Your task to perform on an android device: turn notification dots on Image 0: 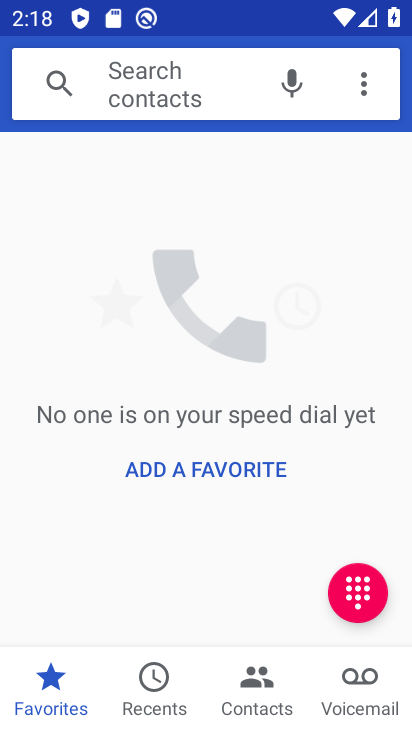
Step 0: press home button
Your task to perform on an android device: turn notification dots on Image 1: 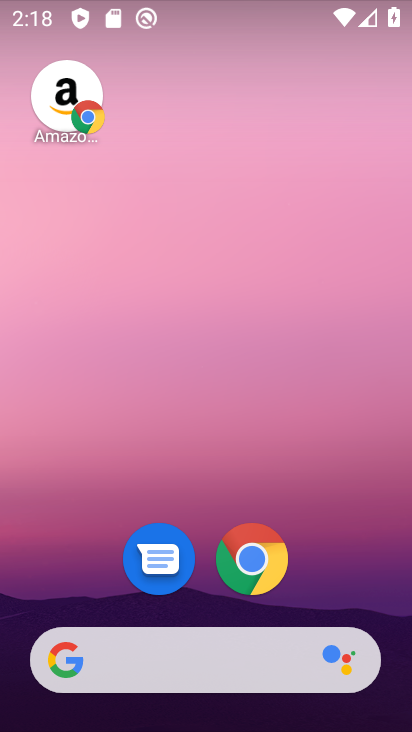
Step 1: drag from (344, 492) to (340, 79)
Your task to perform on an android device: turn notification dots on Image 2: 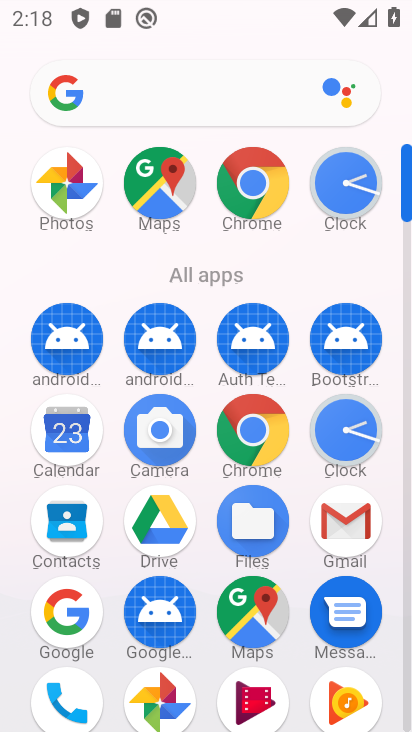
Step 2: drag from (193, 519) to (252, 164)
Your task to perform on an android device: turn notification dots on Image 3: 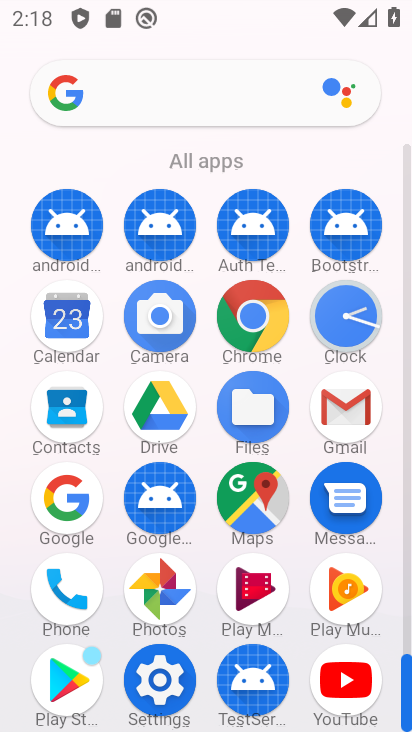
Step 3: drag from (169, 675) to (80, 196)
Your task to perform on an android device: turn notification dots on Image 4: 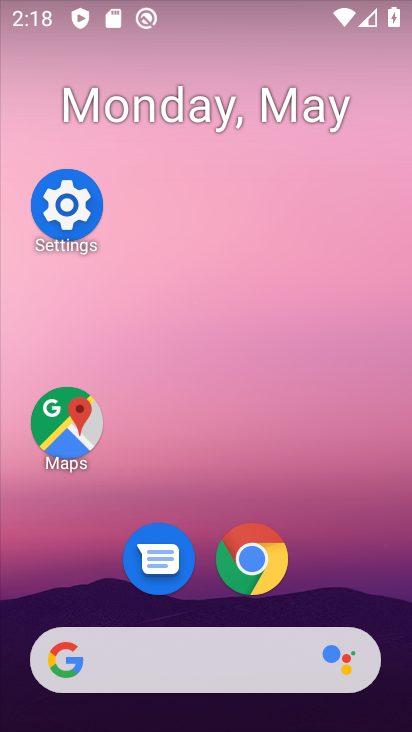
Step 4: click (84, 203)
Your task to perform on an android device: turn notification dots on Image 5: 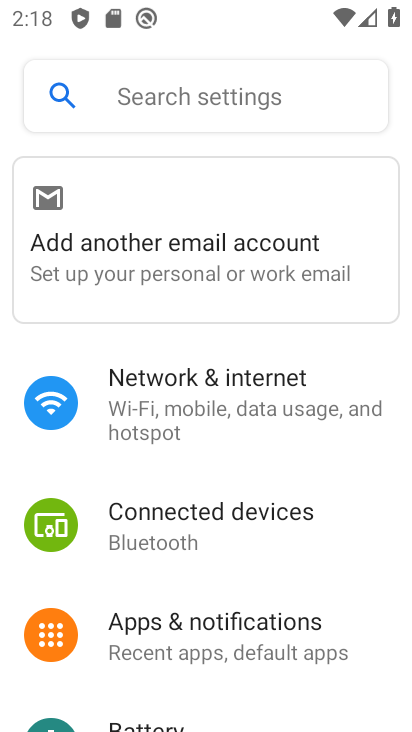
Step 5: click (165, 627)
Your task to perform on an android device: turn notification dots on Image 6: 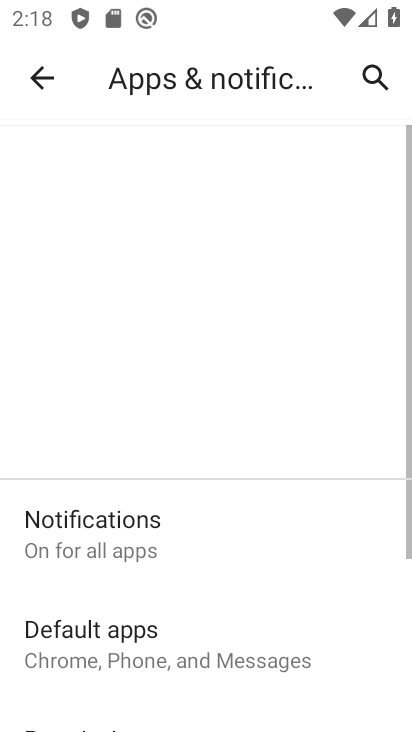
Step 6: click (141, 554)
Your task to perform on an android device: turn notification dots on Image 7: 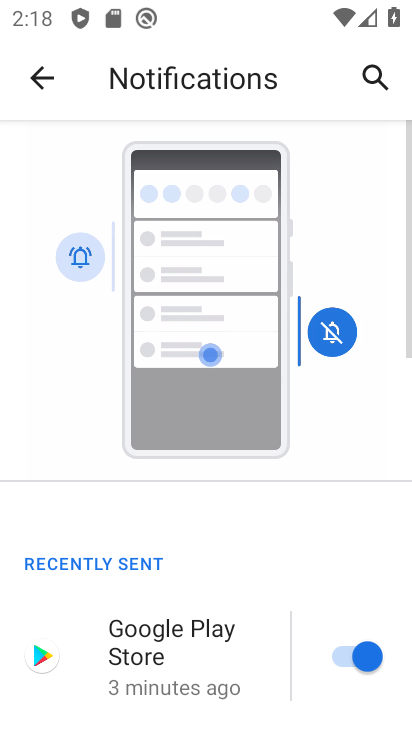
Step 7: drag from (163, 611) to (174, 258)
Your task to perform on an android device: turn notification dots on Image 8: 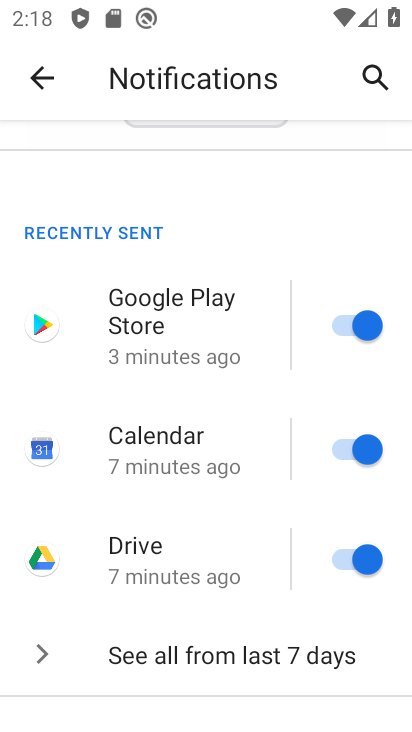
Step 8: drag from (196, 682) to (217, 289)
Your task to perform on an android device: turn notification dots on Image 9: 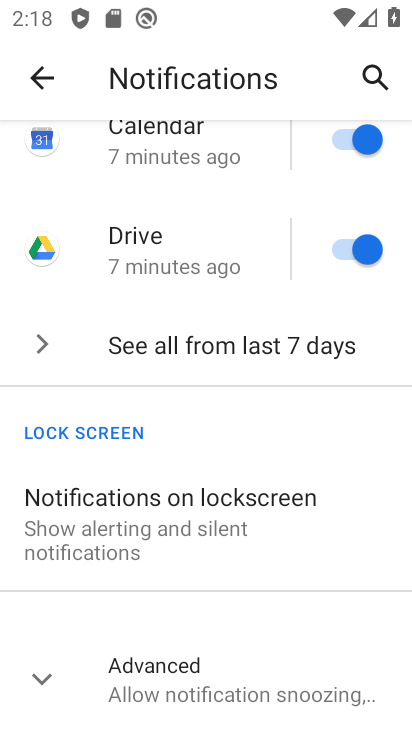
Step 9: click (183, 664)
Your task to perform on an android device: turn notification dots on Image 10: 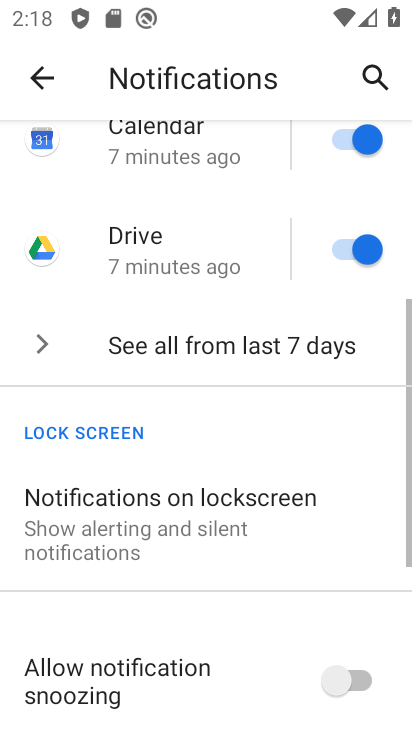
Step 10: task complete